Your task to perform on an android device: Open calendar and show me the third week of next month Image 0: 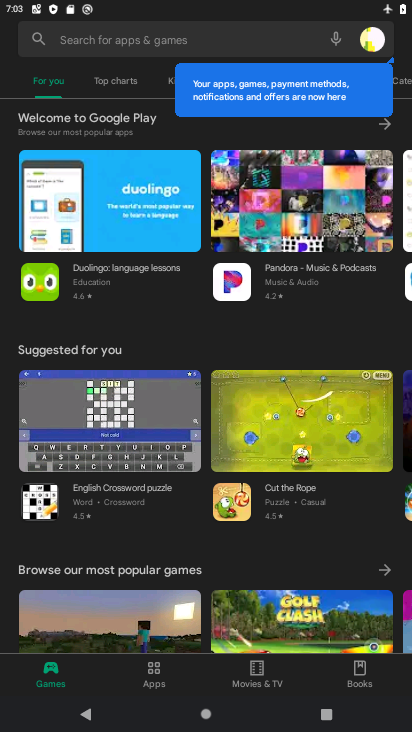
Step 0: press home button
Your task to perform on an android device: Open calendar and show me the third week of next month Image 1: 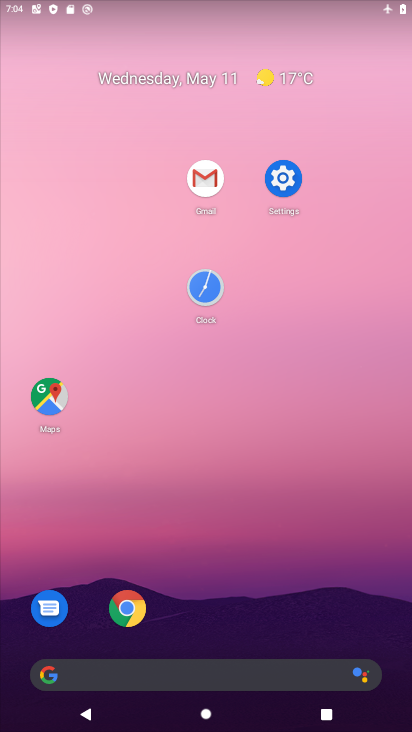
Step 1: drag from (284, 490) to (258, 342)
Your task to perform on an android device: Open calendar and show me the third week of next month Image 2: 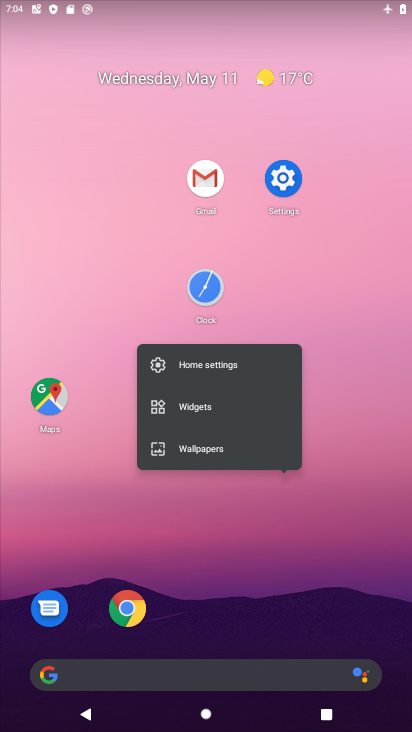
Step 2: click (284, 543)
Your task to perform on an android device: Open calendar and show me the third week of next month Image 3: 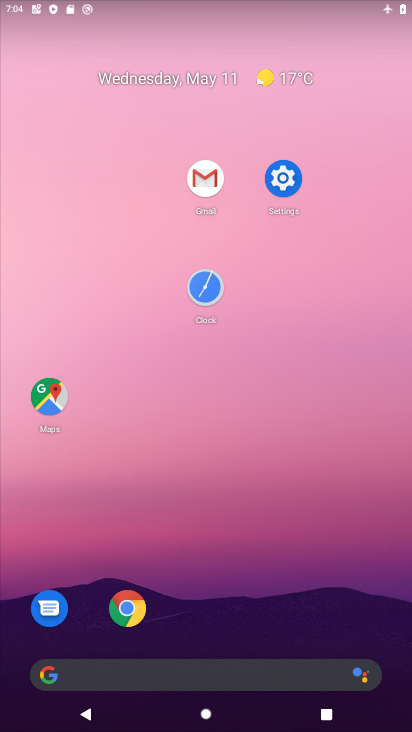
Step 3: drag from (284, 606) to (164, 108)
Your task to perform on an android device: Open calendar and show me the third week of next month Image 4: 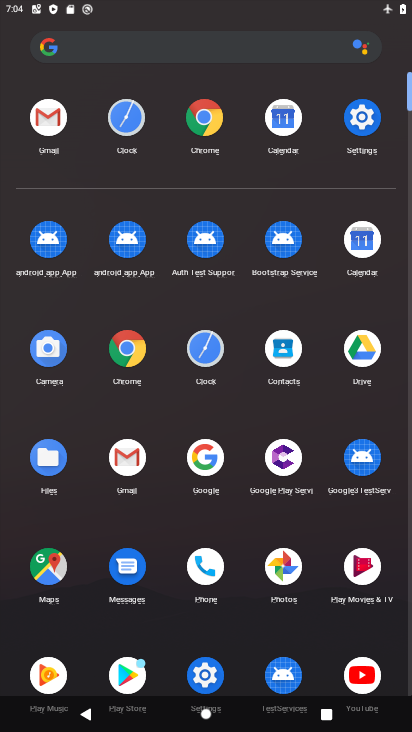
Step 4: drag from (374, 262) to (282, 435)
Your task to perform on an android device: Open calendar and show me the third week of next month Image 5: 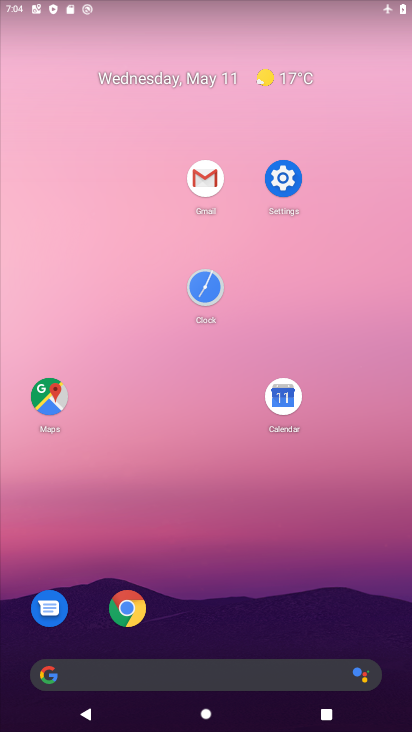
Step 5: click (278, 408)
Your task to perform on an android device: Open calendar and show me the third week of next month Image 6: 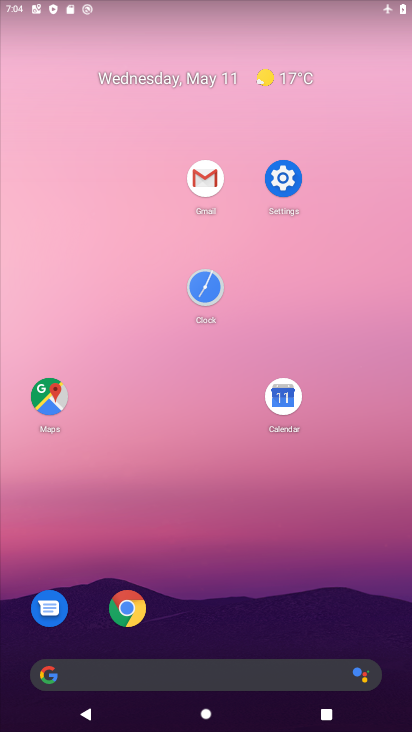
Step 6: click (278, 408)
Your task to perform on an android device: Open calendar and show me the third week of next month Image 7: 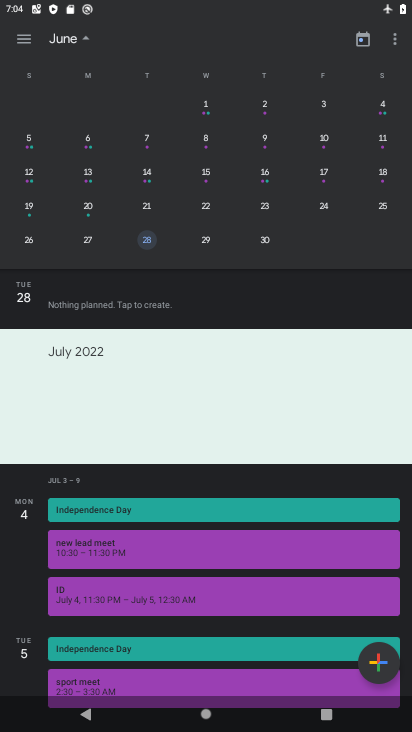
Step 7: click (216, 203)
Your task to perform on an android device: Open calendar and show me the third week of next month Image 8: 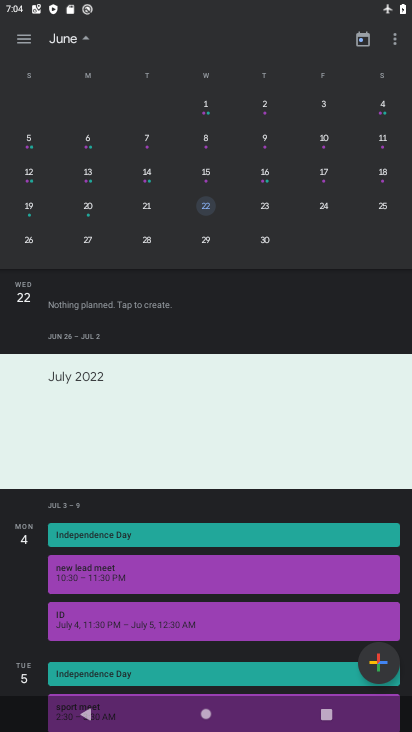
Step 8: task complete